Your task to perform on an android device: Open the phone app and click the voicemail tab. Image 0: 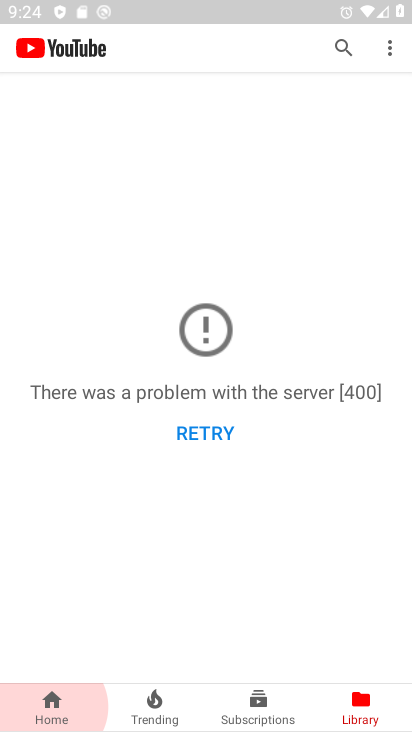
Step 0: press home button
Your task to perform on an android device: Open the phone app and click the voicemail tab. Image 1: 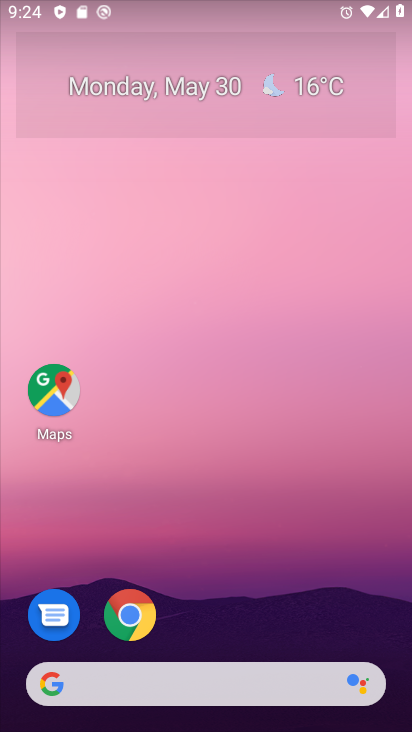
Step 1: drag from (250, 474) to (295, 102)
Your task to perform on an android device: Open the phone app and click the voicemail tab. Image 2: 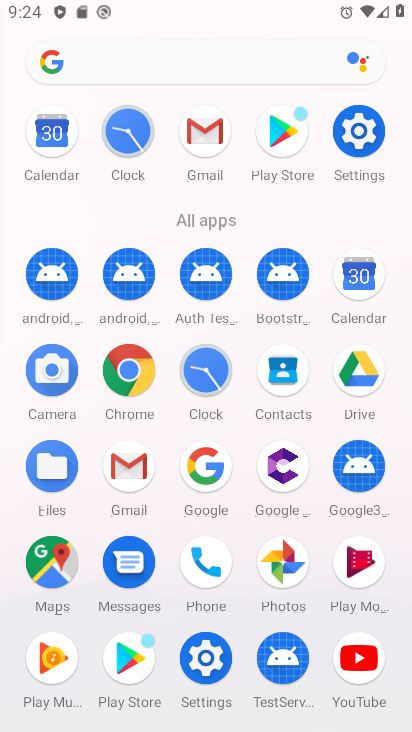
Step 2: click (208, 555)
Your task to perform on an android device: Open the phone app and click the voicemail tab. Image 3: 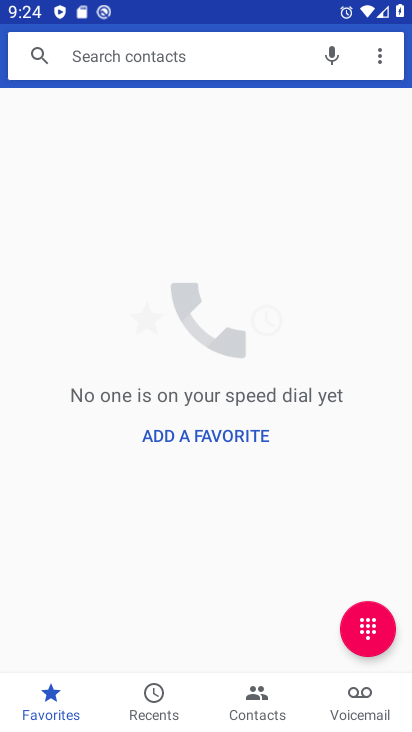
Step 3: click (362, 713)
Your task to perform on an android device: Open the phone app and click the voicemail tab. Image 4: 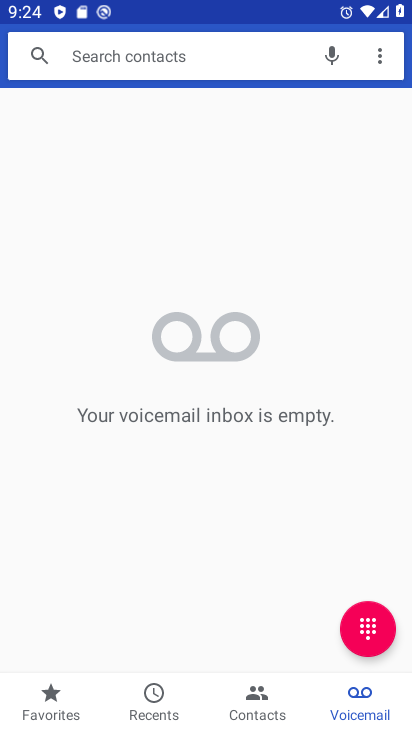
Step 4: task complete